Your task to perform on an android device: turn notification dots on Image 0: 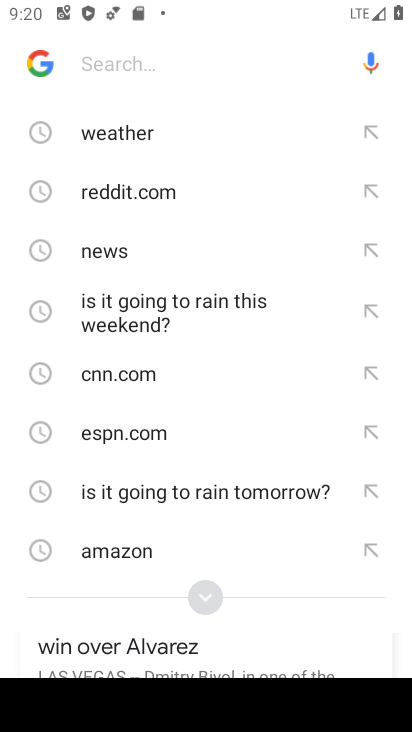
Step 0: press home button
Your task to perform on an android device: turn notification dots on Image 1: 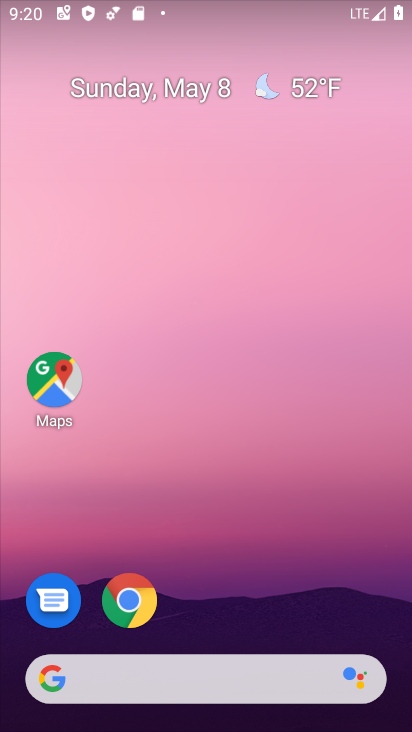
Step 1: drag from (271, 612) to (244, 0)
Your task to perform on an android device: turn notification dots on Image 2: 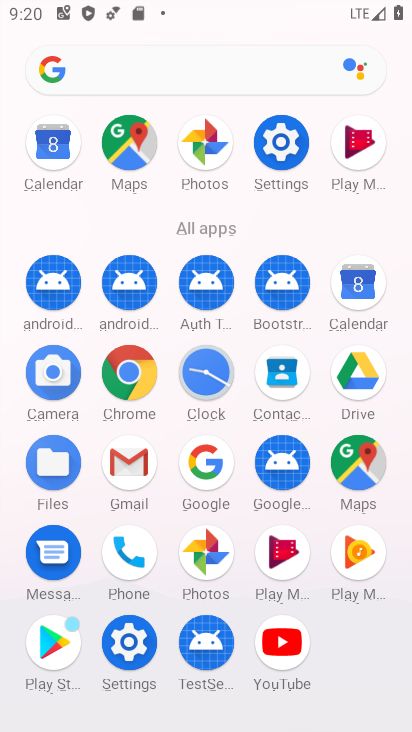
Step 2: click (266, 143)
Your task to perform on an android device: turn notification dots on Image 3: 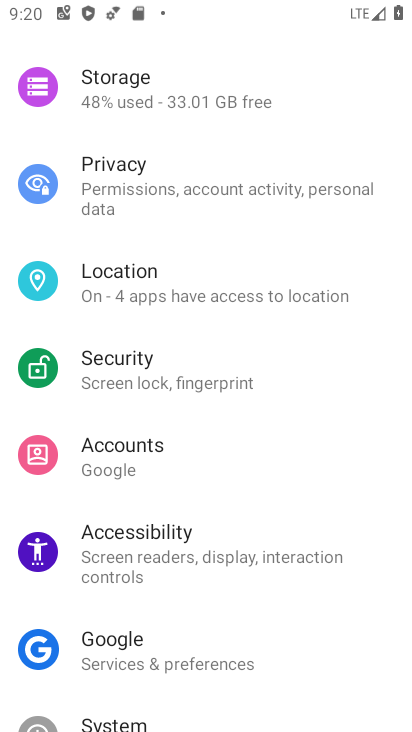
Step 3: drag from (374, 177) to (373, 583)
Your task to perform on an android device: turn notification dots on Image 4: 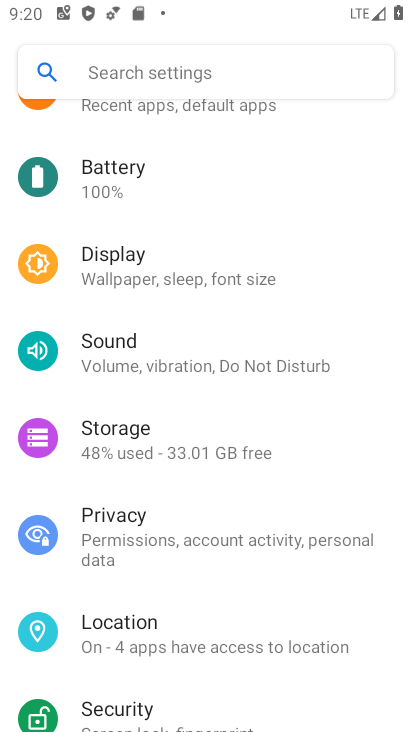
Step 4: drag from (298, 196) to (333, 532)
Your task to perform on an android device: turn notification dots on Image 5: 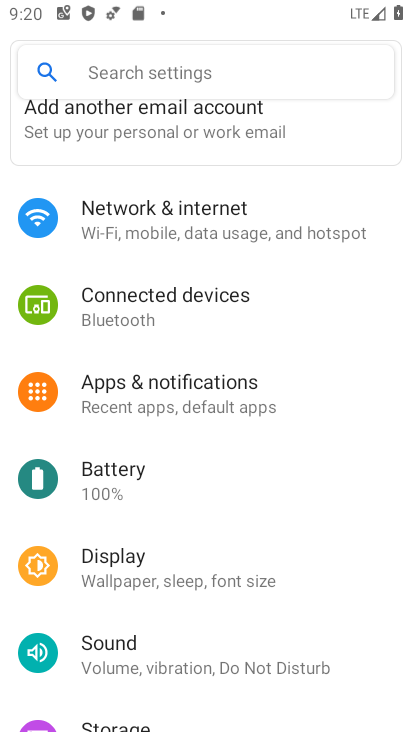
Step 5: click (168, 394)
Your task to perform on an android device: turn notification dots on Image 6: 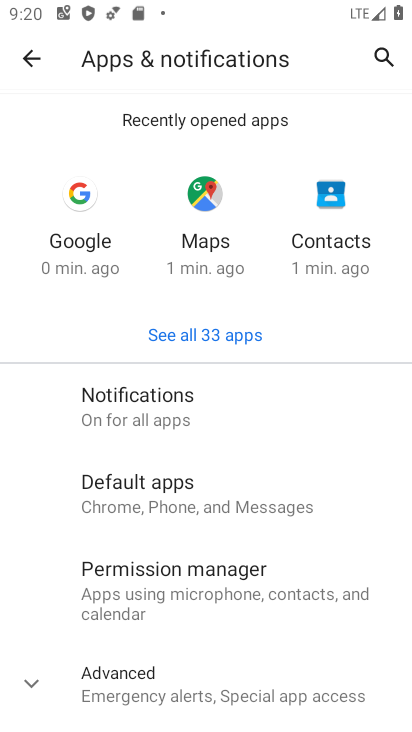
Step 6: click (151, 398)
Your task to perform on an android device: turn notification dots on Image 7: 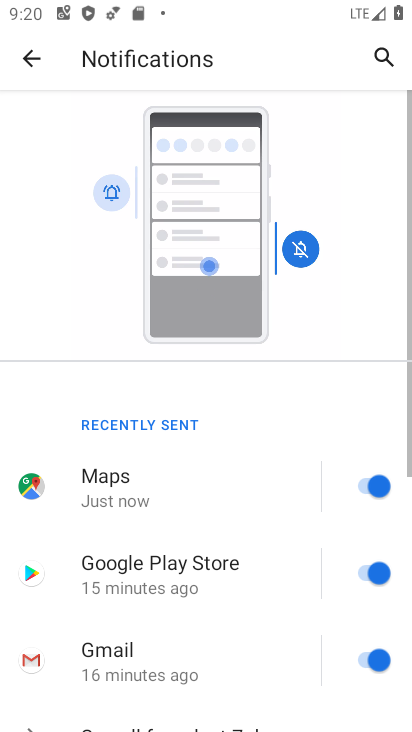
Step 7: drag from (189, 550) to (148, 0)
Your task to perform on an android device: turn notification dots on Image 8: 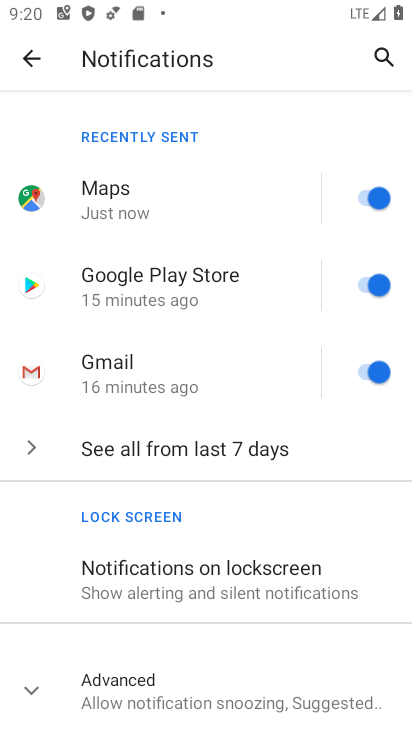
Step 8: click (32, 704)
Your task to perform on an android device: turn notification dots on Image 9: 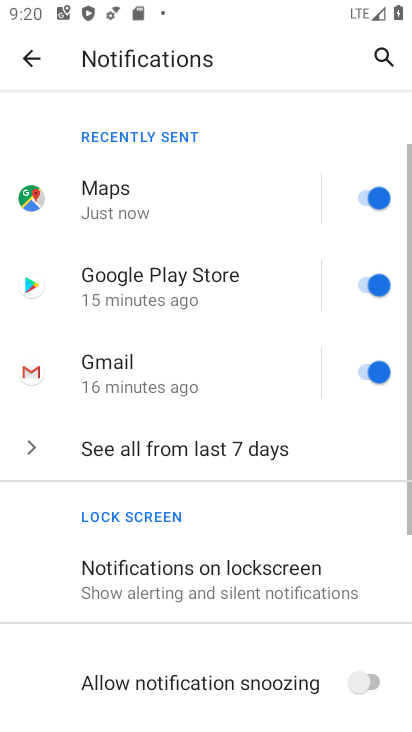
Step 9: task complete